Your task to perform on an android device: Go to Reddit.com Image 0: 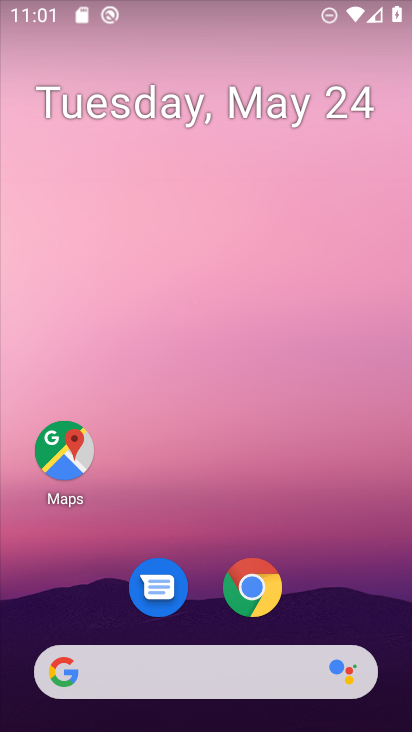
Step 0: press home button
Your task to perform on an android device: Go to Reddit.com Image 1: 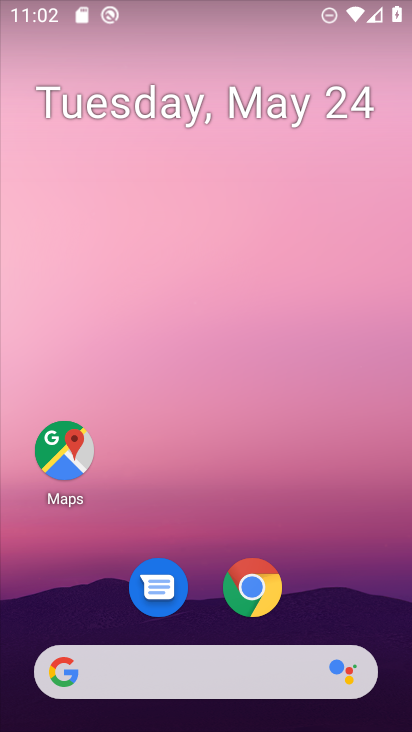
Step 1: click (240, 586)
Your task to perform on an android device: Go to Reddit.com Image 2: 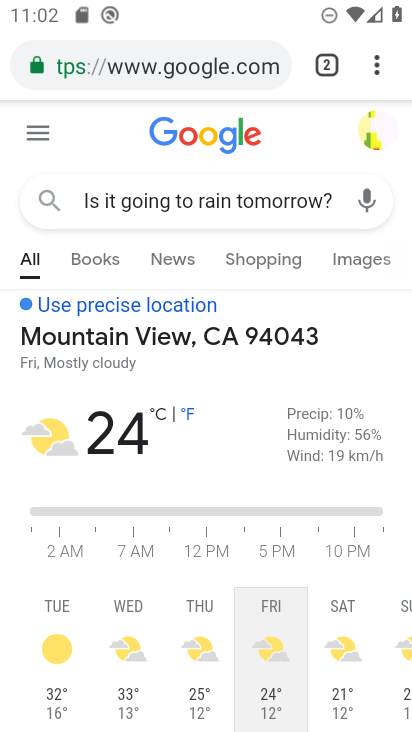
Step 2: drag from (383, 56) to (384, 0)
Your task to perform on an android device: Go to Reddit.com Image 3: 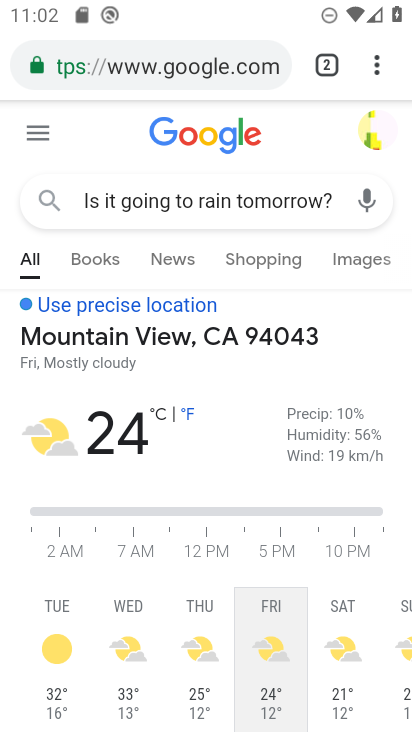
Step 3: click (91, 59)
Your task to perform on an android device: Go to Reddit.com Image 4: 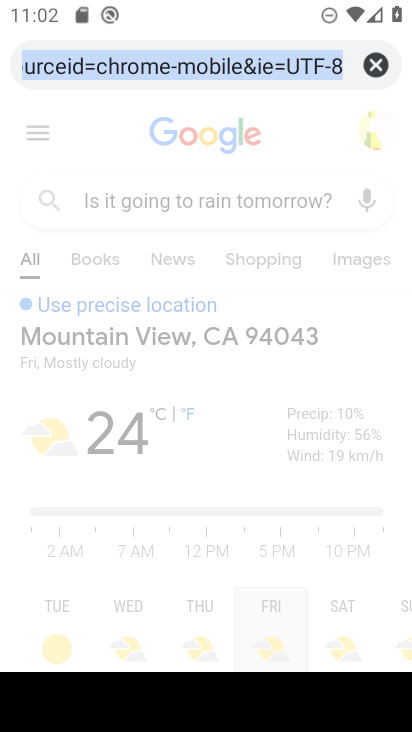
Step 4: click (376, 64)
Your task to perform on an android device: Go to Reddit.com Image 5: 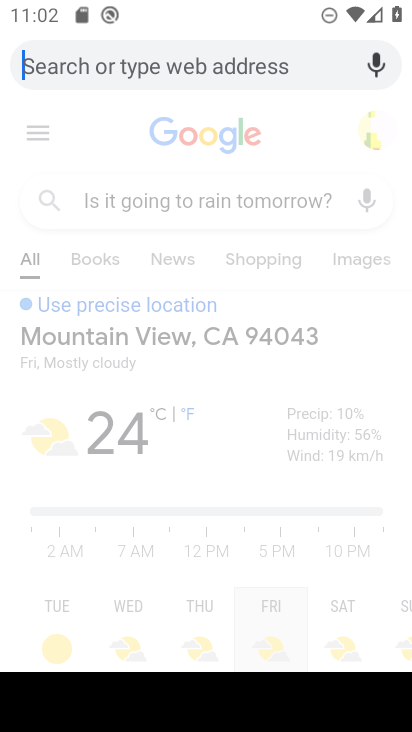
Step 5: type "Reddit.com"
Your task to perform on an android device: Go to Reddit.com Image 6: 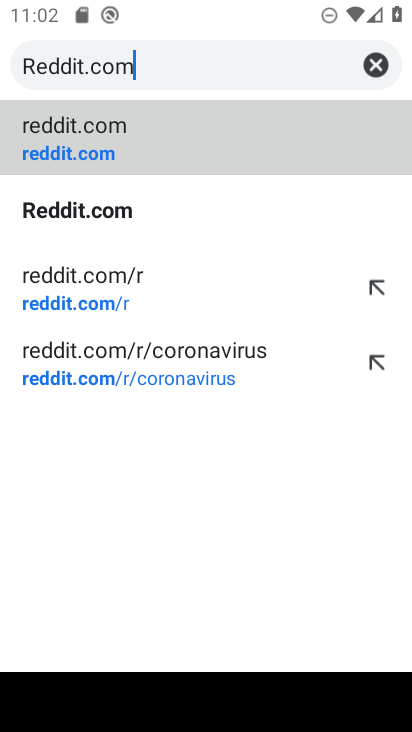
Step 6: click (81, 121)
Your task to perform on an android device: Go to Reddit.com Image 7: 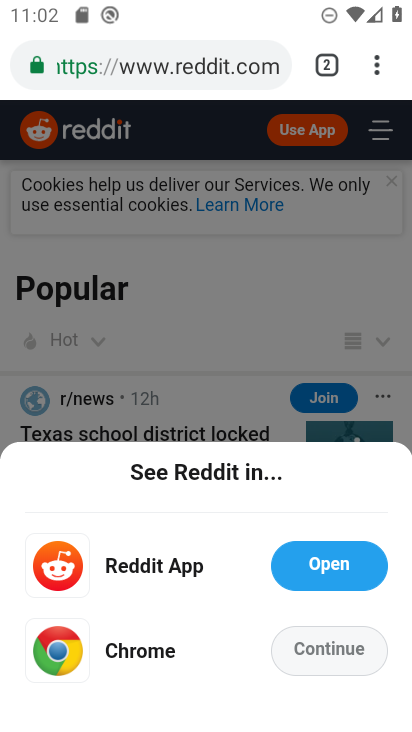
Step 7: task complete